Your task to perform on an android device: manage bookmarks in the chrome app Image 0: 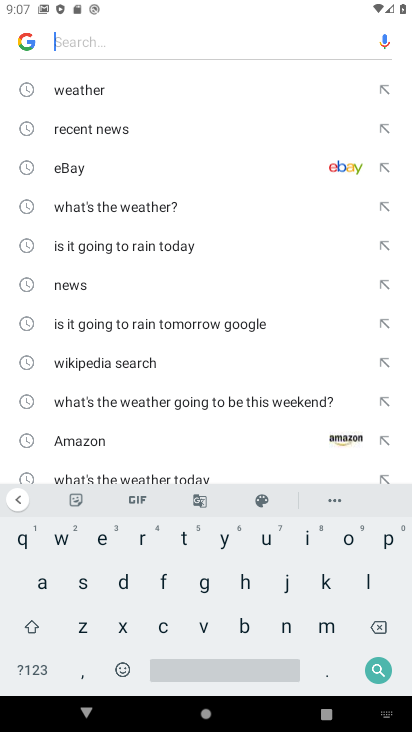
Step 0: press home button
Your task to perform on an android device: manage bookmarks in the chrome app Image 1: 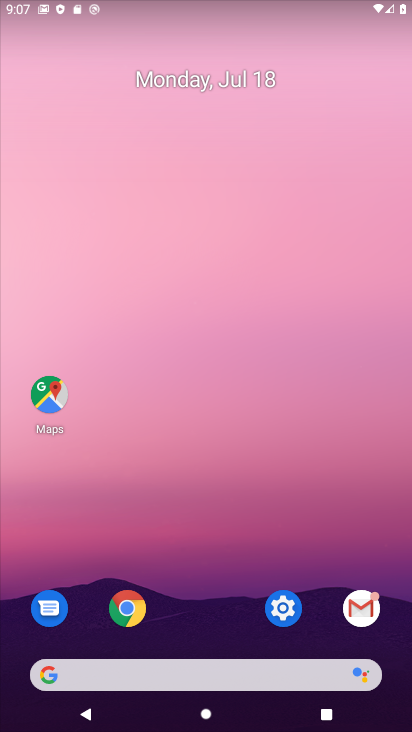
Step 1: click (133, 611)
Your task to perform on an android device: manage bookmarks in the chrome app Image 2: 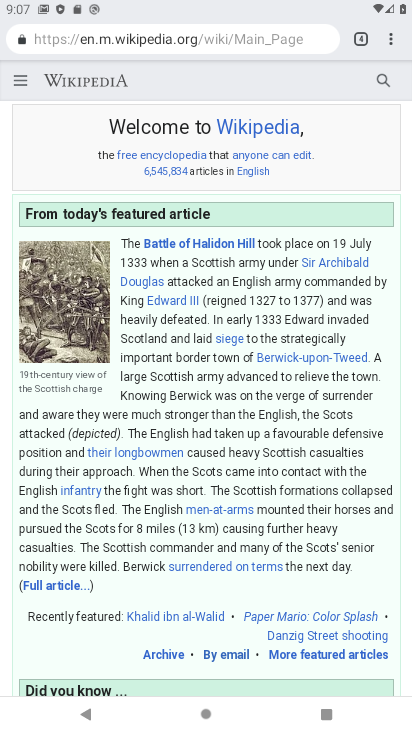
Step 2: click (384, 49)
Your task to perform on an android device: manage bookmarks in the chrome app Image 3: 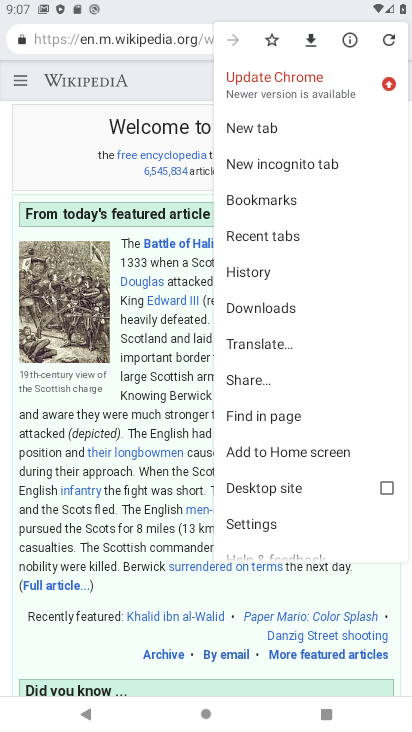
Step 3: click (279, 199)
Your task to perform on an android device: manage bookmarks in the chrome app Image 4: 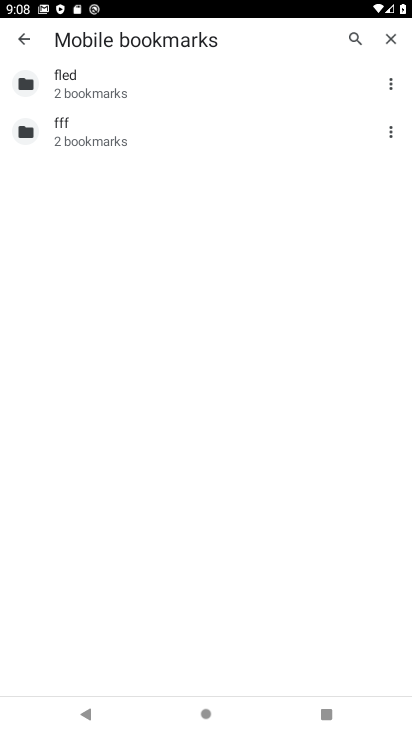
Step 4: task complete